Your task to perform on an android device: Search for vegetarian restaurants on Maps Image 0: 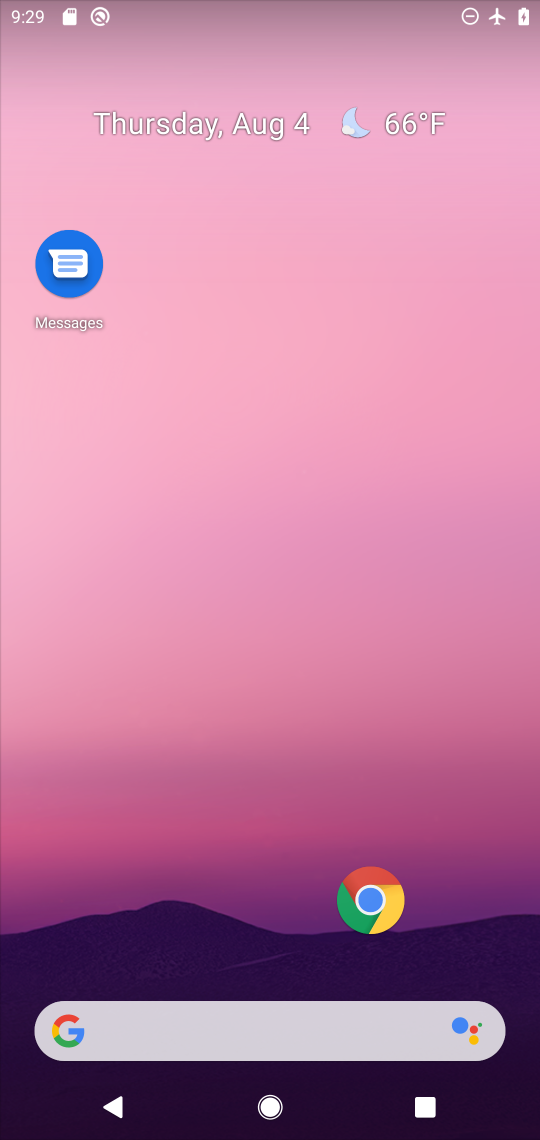
Step 0: drag from (207, 1033) to (265, 77)
Your task to perform on an android device: Search for vegetarian restaurants on Maps Image 1: 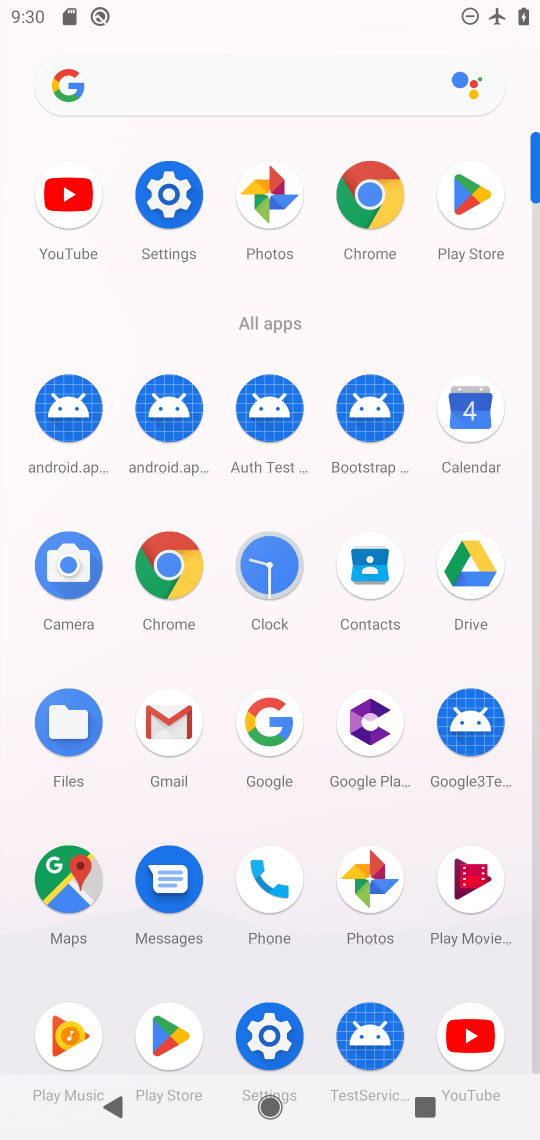
Step 1: click (87, 880)
Your task to perform on an android device: Search for vegetarian restaurants on Maps Image 2: 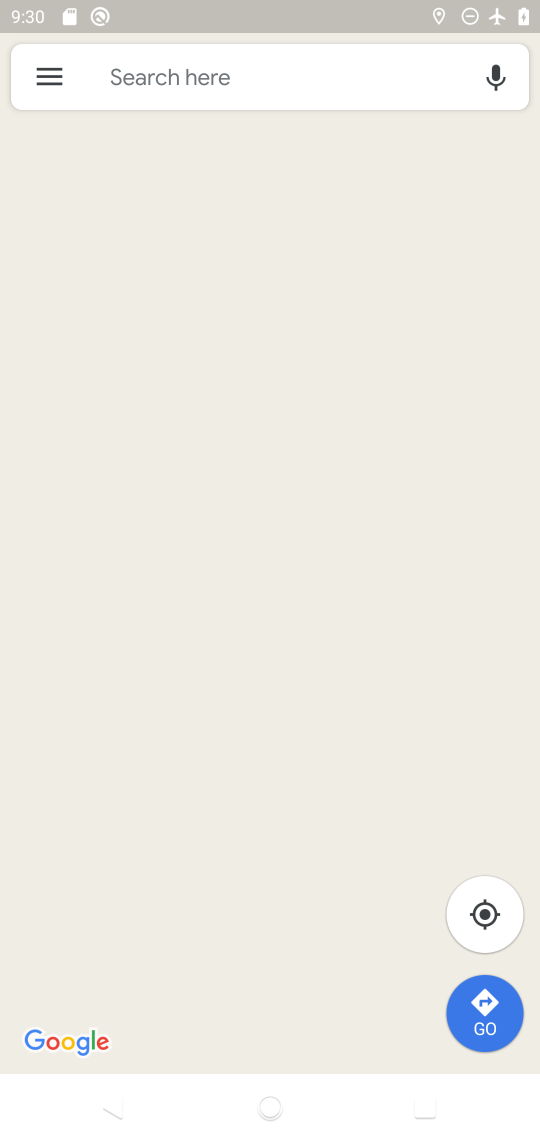
Step 2: click (182, 103)
Your task to perform on an android device: Search for vegetarian restaurants on Maps Image 3: 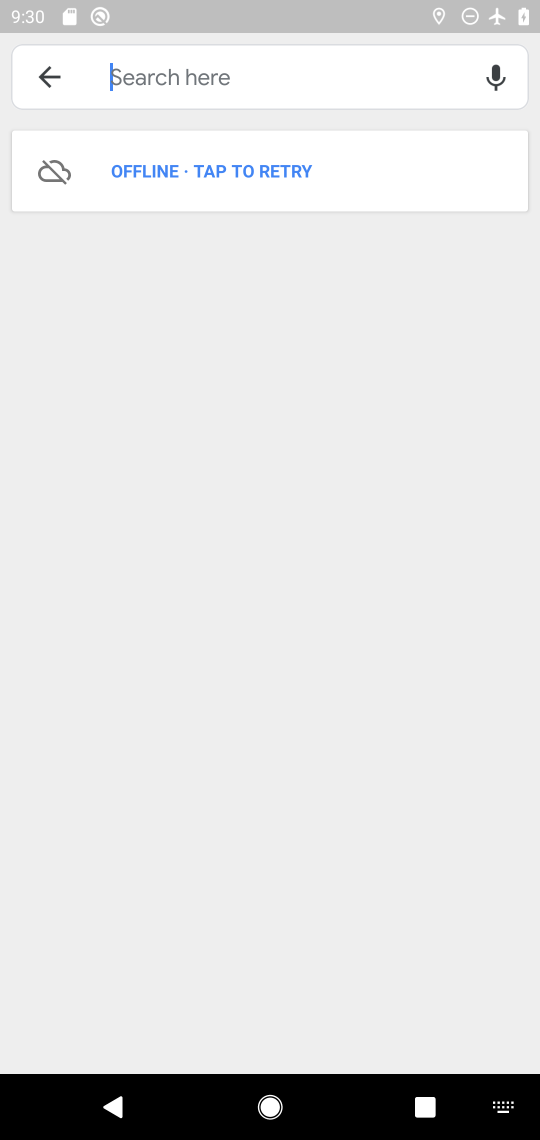
Step 3: type "vegetarian res"
Your task to perform on an android device: Search for vegetarian restaurants on Maps Image 4: 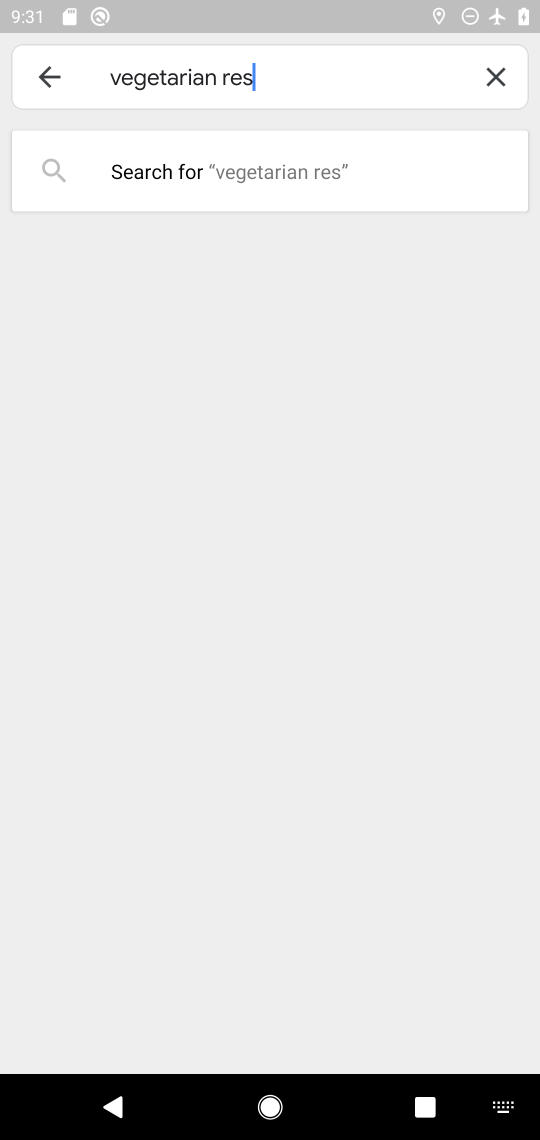
Step 4: task complete